Your task to perform on an android device: turn on the 24-hour format for clock Image 0: 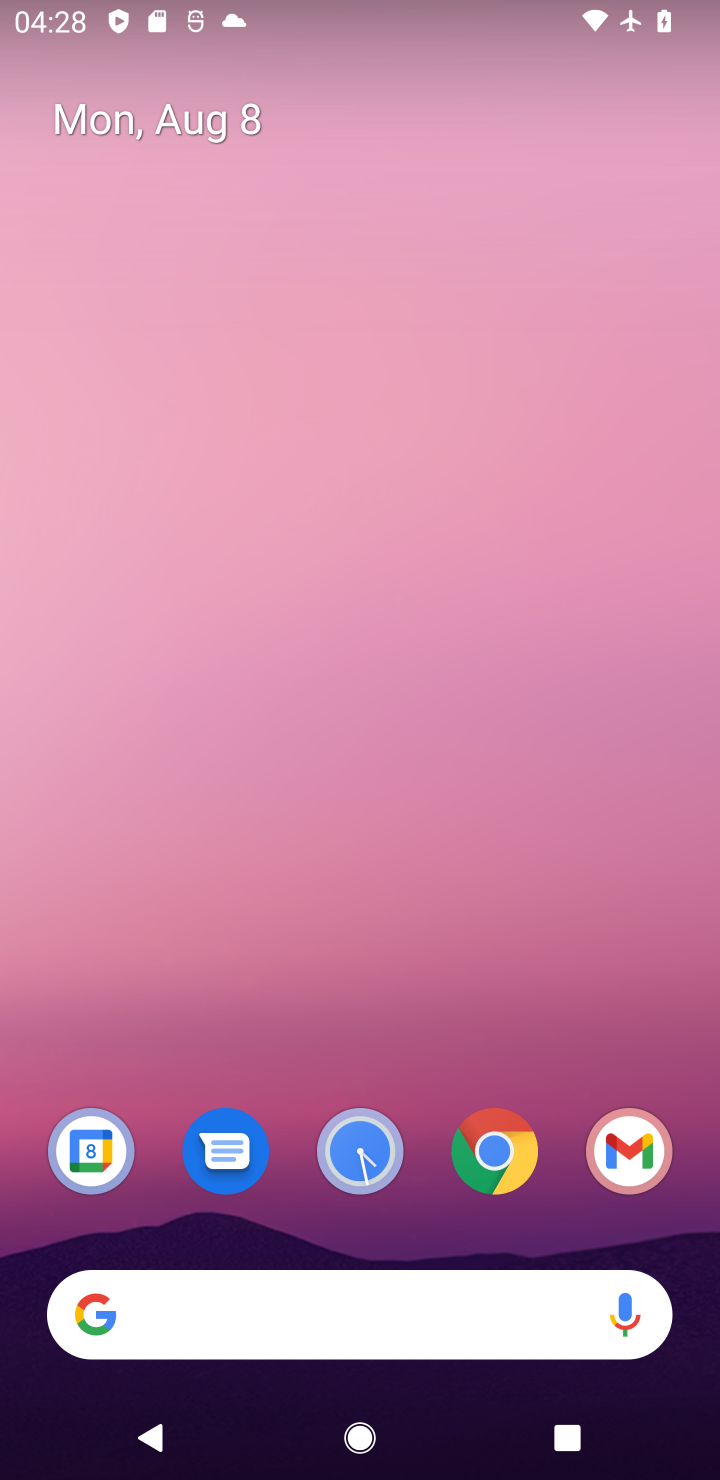
Step 0: click (334, 1162)
Your task to perform on an android device: turn on the 24-hour format for clock Image 1: 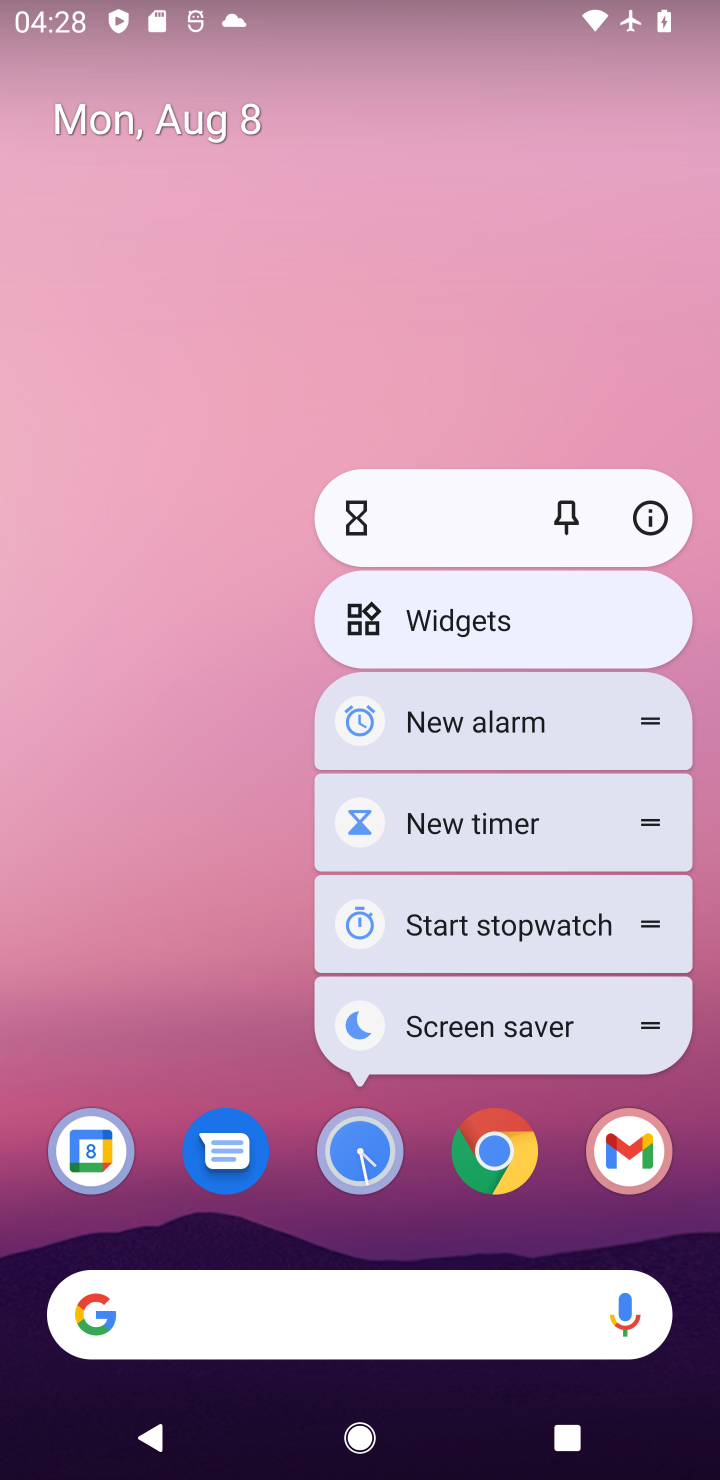
Step 1: click (334, 1162)
Your task to perform on an android device: turn on the 24-hour format for clock Image 2: 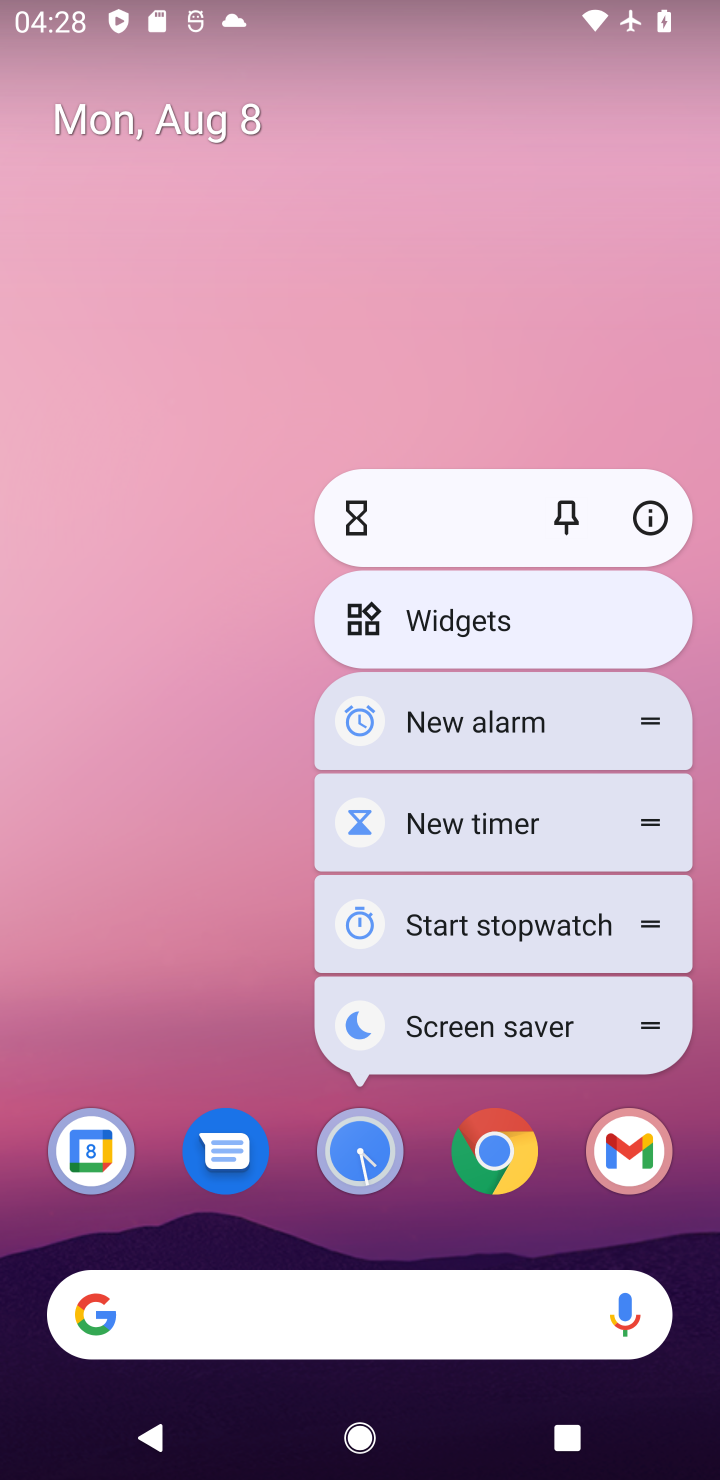
Step 2: click (343, 1164)
Your task to perform on an android device: turn on the 24-hour format for clock Image 3: 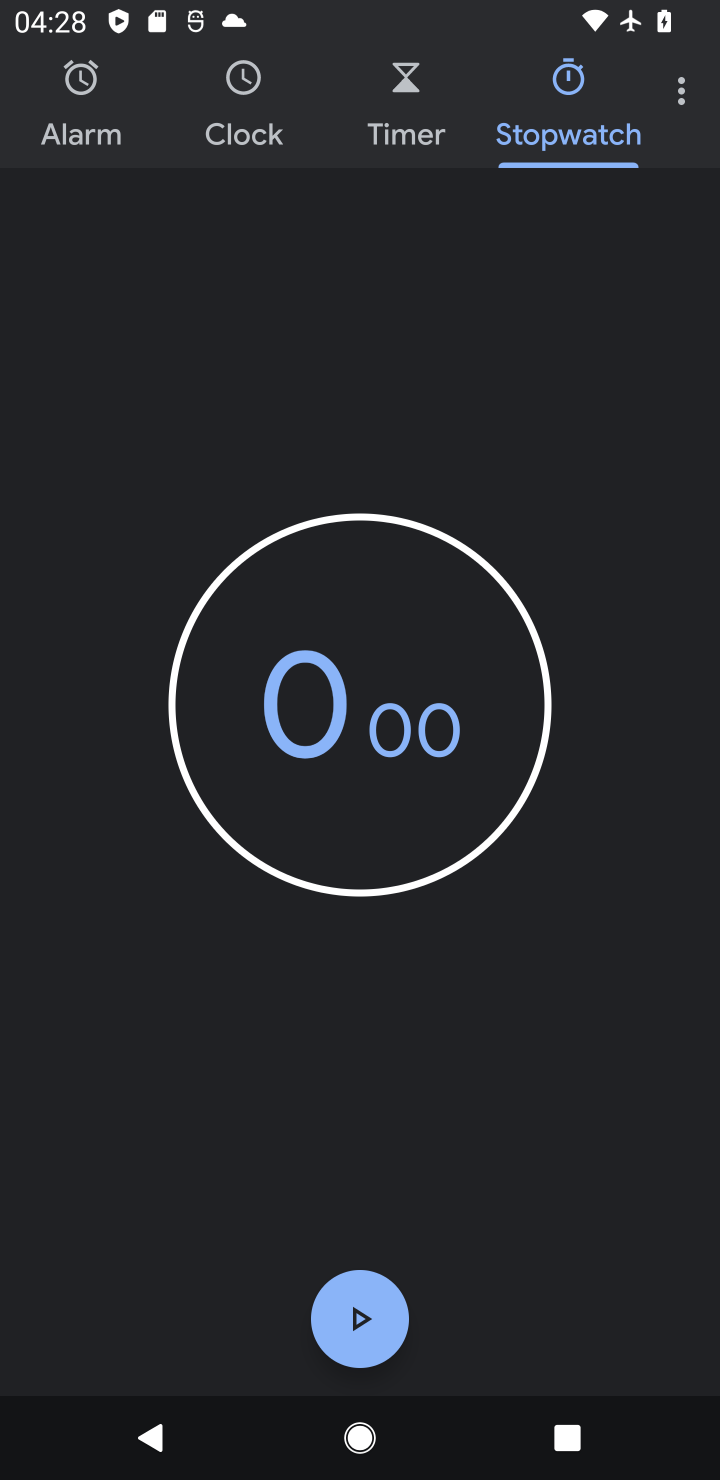
Step 3: click (675, 90)
Your task to perform on an android device: turn on the 24-hour format for clock Image 4: 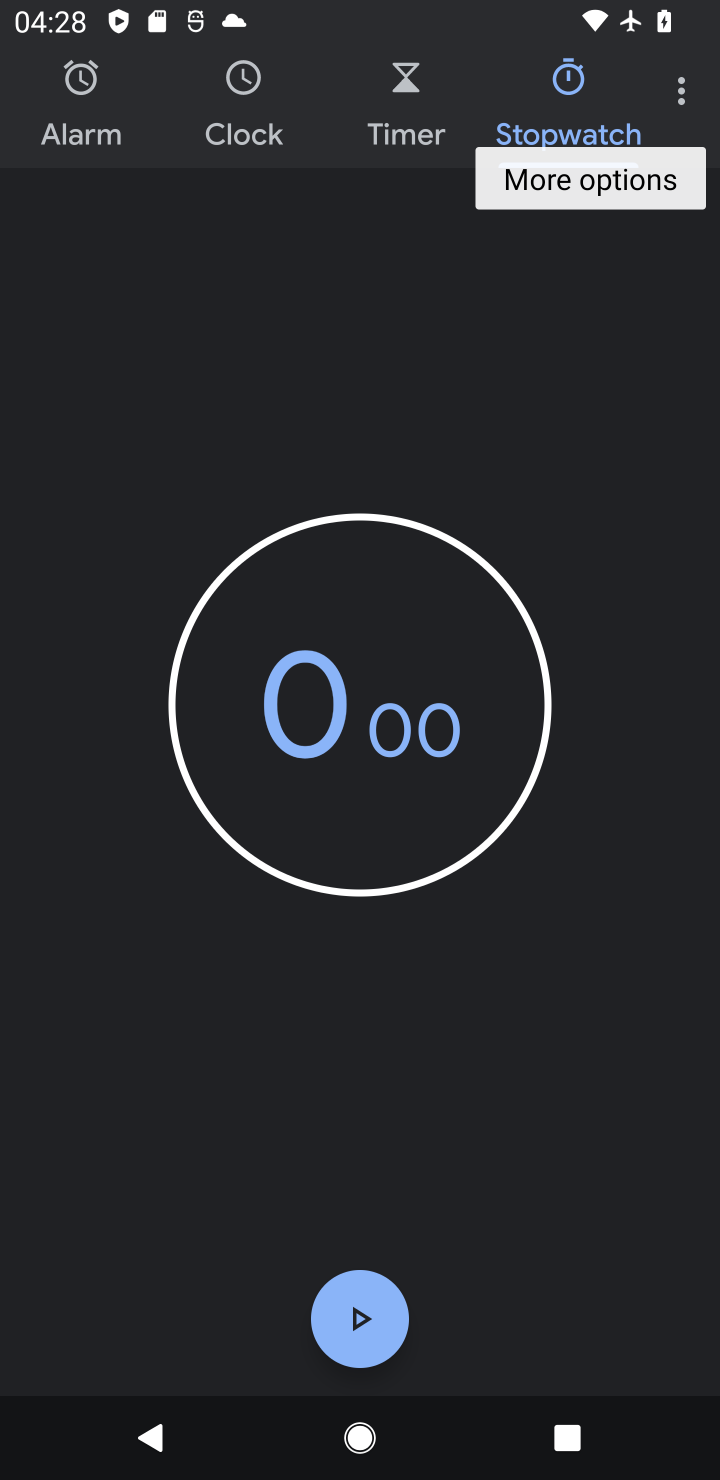
Step 4: click (680, 103)
Your task to perform on an android device: turn on the 24-hour format for clock Image 5: 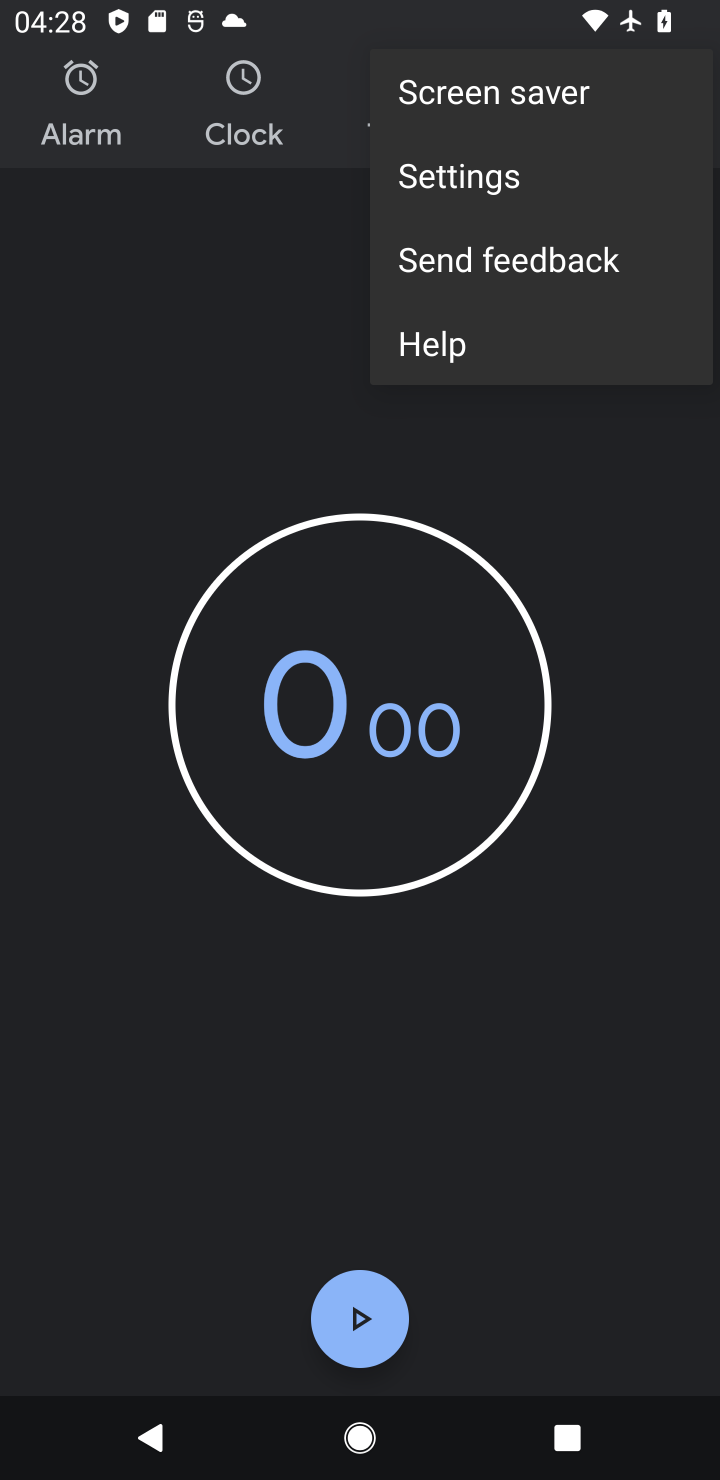
Step 5: click (531, 162)
Your task to perform on an android device: turn on the 24-hour format for clock Image 6: 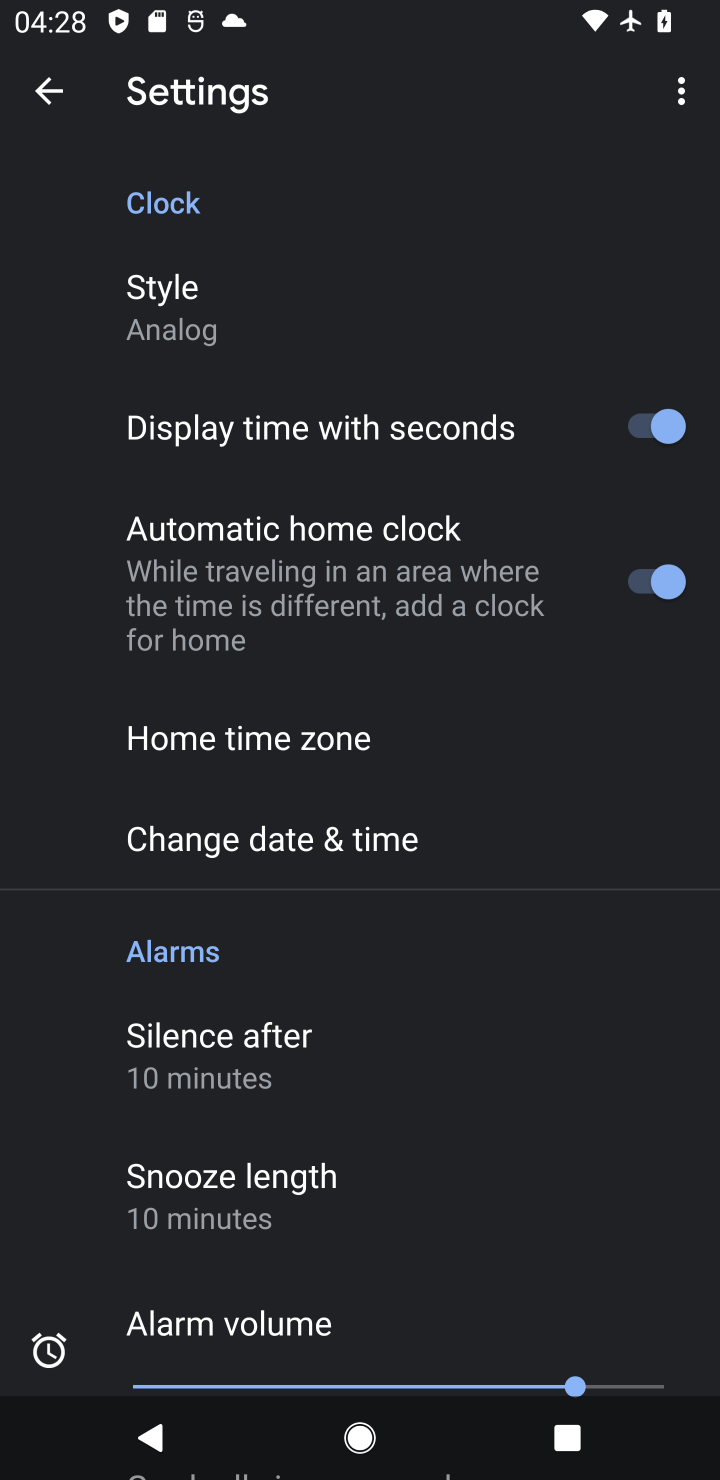
Step 6: click (343, 815)
Your task to perform on an android device: turn on the 24-hour format for clock Image 7: 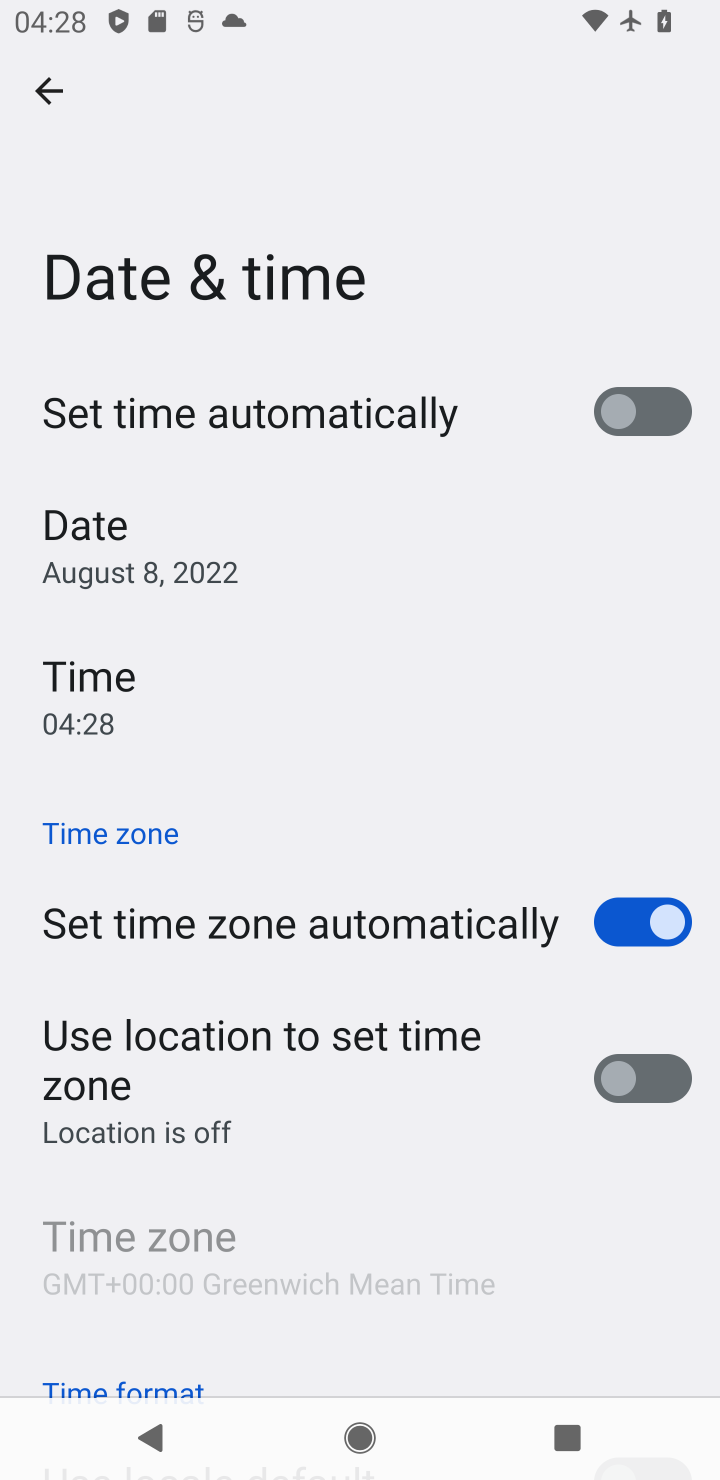
Step 7: task complete